Your task to perform on an android device: Go to Amazon Image 0: 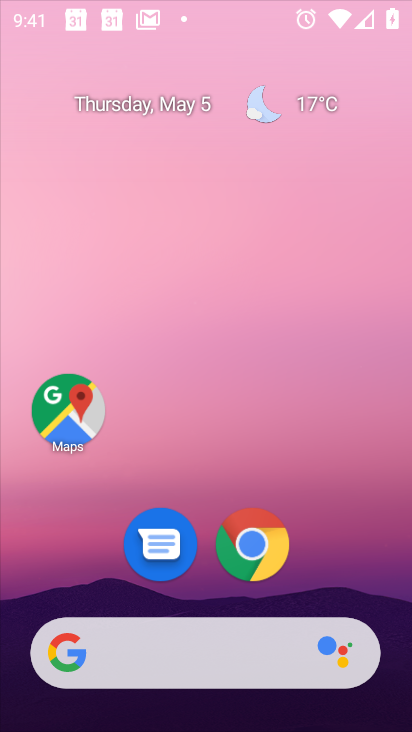
Step 0: click (359, 584)
Your task to perform on an android device: Go to Amazon Image 1: 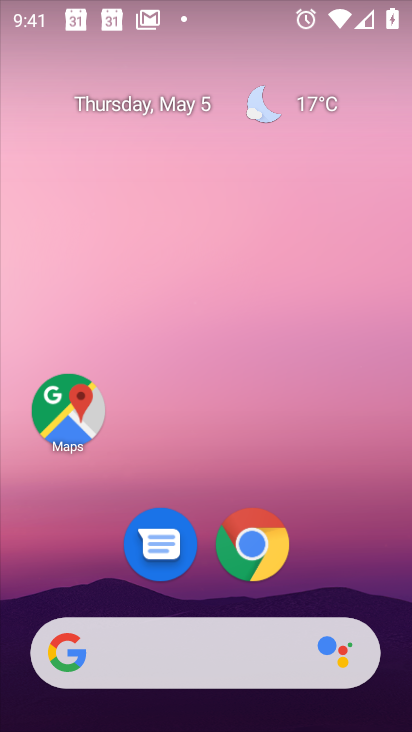
Step 1: click (276, 560)
Your task to perform on an android device: Go to Amazon Image 2: 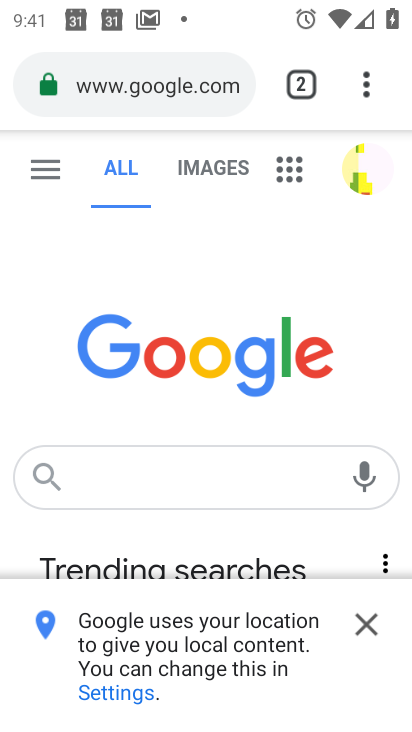
Step 2: click (371, 607)
Your task to perform on an android device: Go to Amazon Image 3: 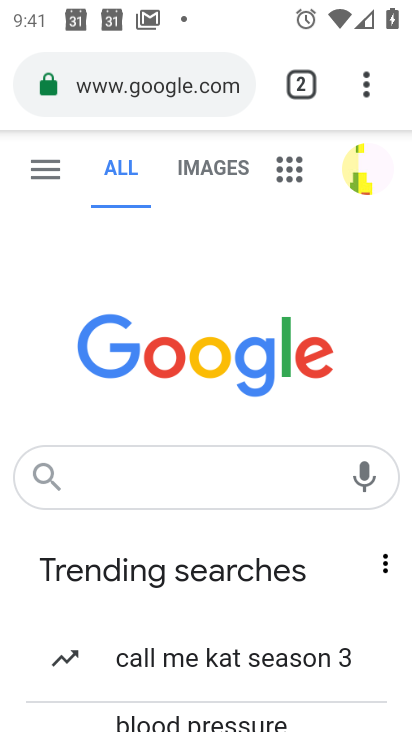
Step 3: click (201, 90)
Your task to perform on an android device: Go to Amazon Image 4: 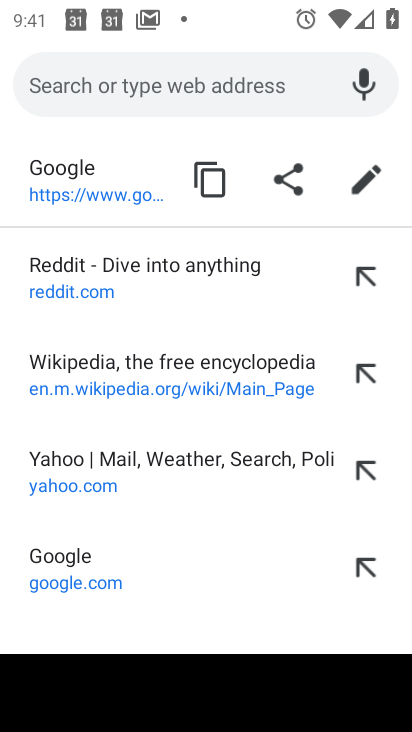
Step 4: type "amazon"
Your task to perform on an android device: Go to Amazon Image 5: 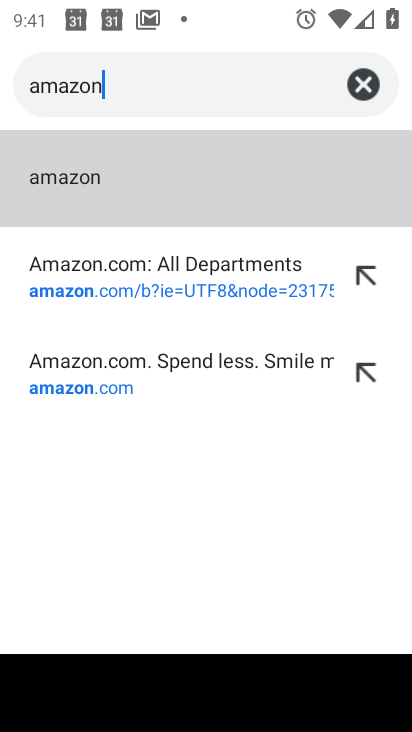
Step 5: click (235, 301)
Your task to perform on an android device: Go to Amazon Image 6: 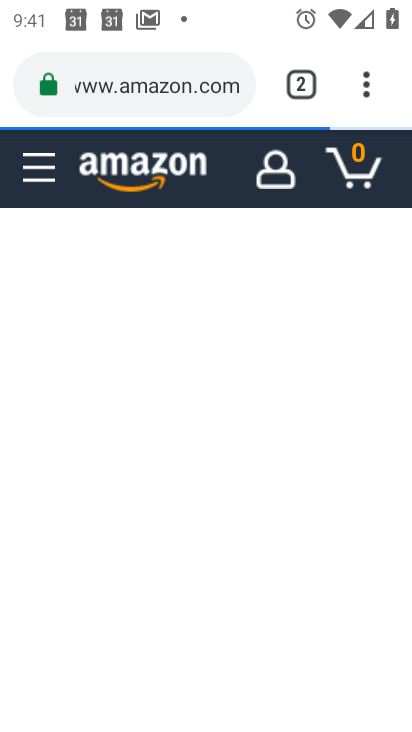
Step 6: task complete